Your task to perform on an android device: turn off airplane mode Image 0: 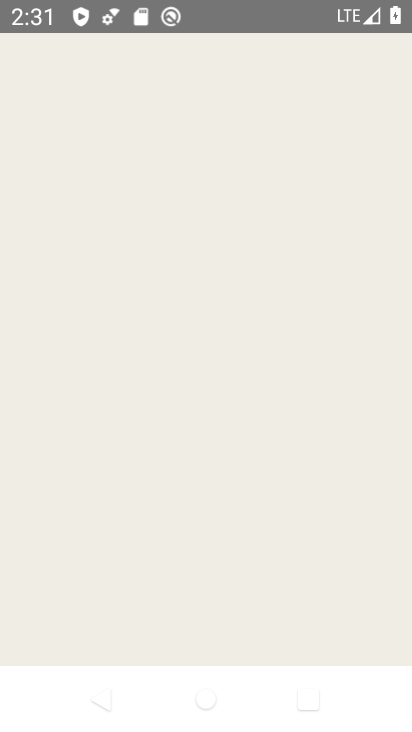
Step 0: drag from (333, 336) to (331, 132)
Your task to perform on an android device: turn off airplane mode Image 1: 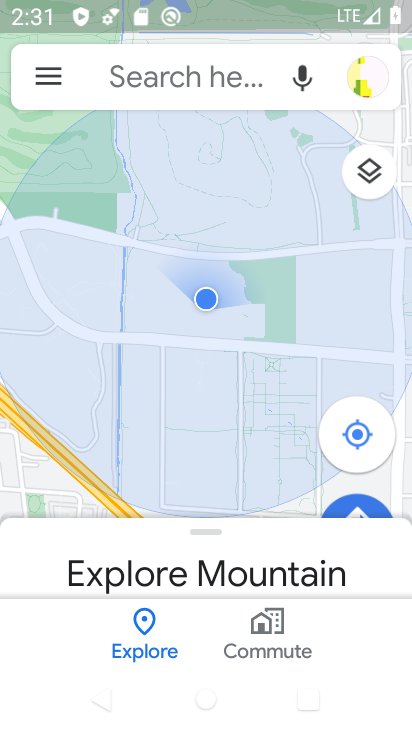
Step 1: press home button
Your task to perform on an android device: turn off airplane mode Image 2: 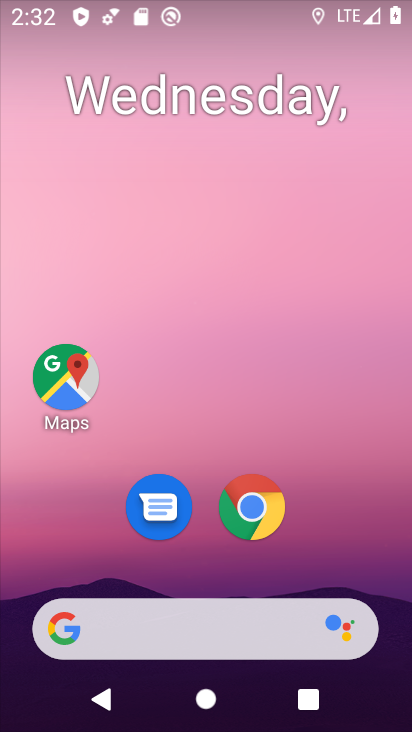
Step 2: drag from (316, 520) to (289, 20)
Your task to perform on an android device: turn off airplane mode Image 3: 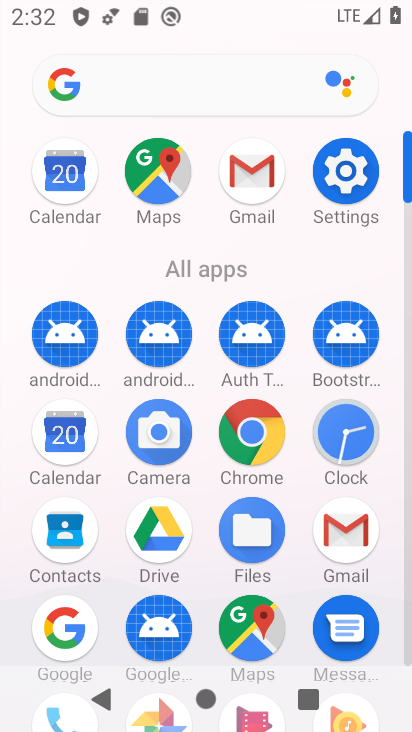
Step 3: click (344, 191)
Your task to perform on an android device: turn off airplane mode Image 4: 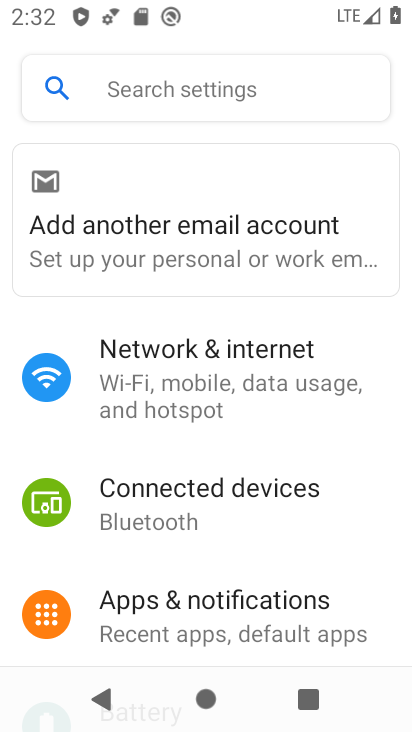
Step 4: click (231, 365)
Your task to perform on an android device: turn off airplane mode Image 5: 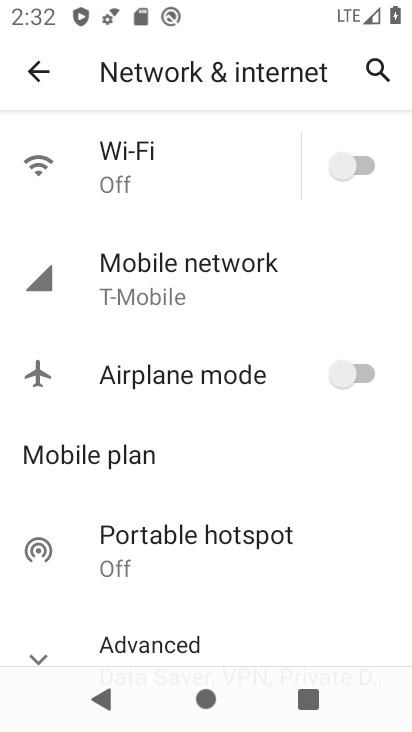
Step 5: task complete